Your task to perform on an android device: Go to ESPN.com Image 0: 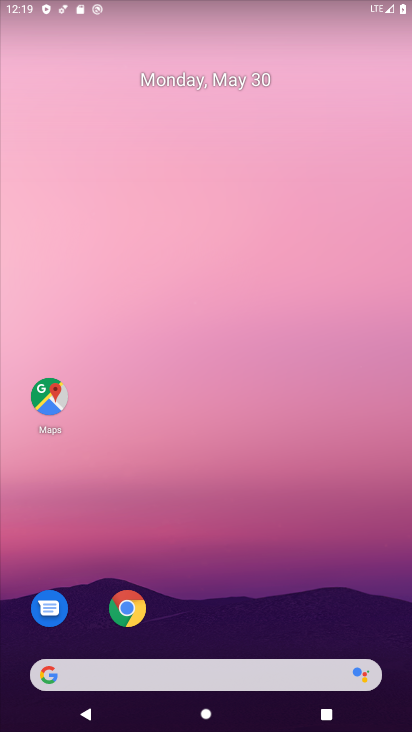
Step 0: click (134, 604)
Your task to perform on an android device: Go to ESPN.com Image 1: 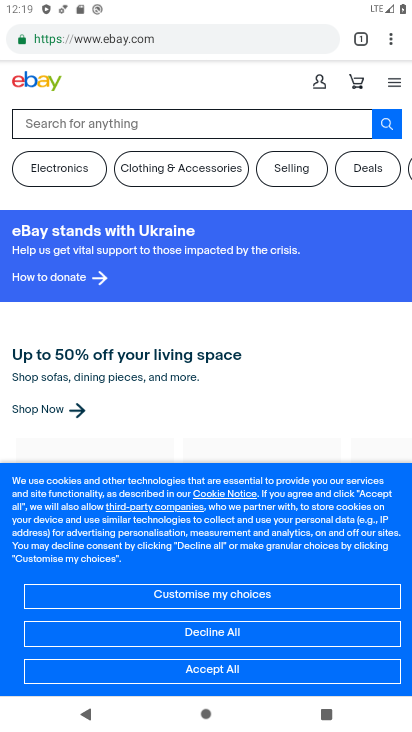
Step 1: click (156, 34)
Your task to perform on an android device: Go to ESPN.com Image 2: 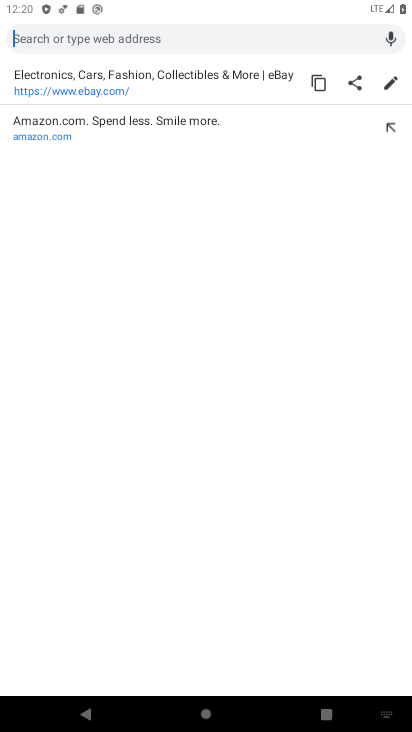
Step 2: type "ESPN.com"
Your task to perform on an android device: Go to ESPN.com Image 3: 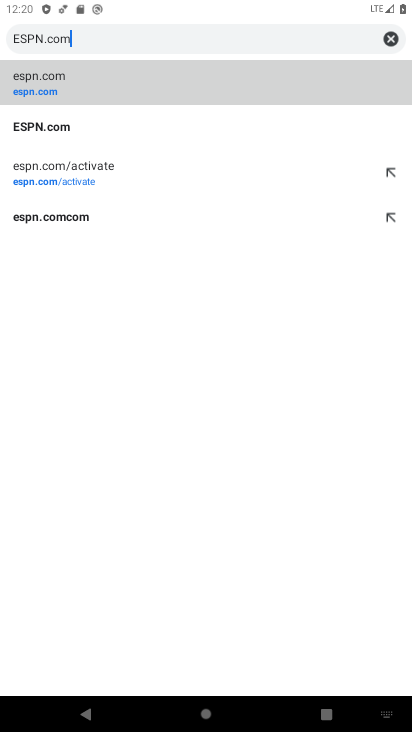
Step 3: click (61, 86)
Your task to perform on an android device: Go to ESPN.com Image 4: 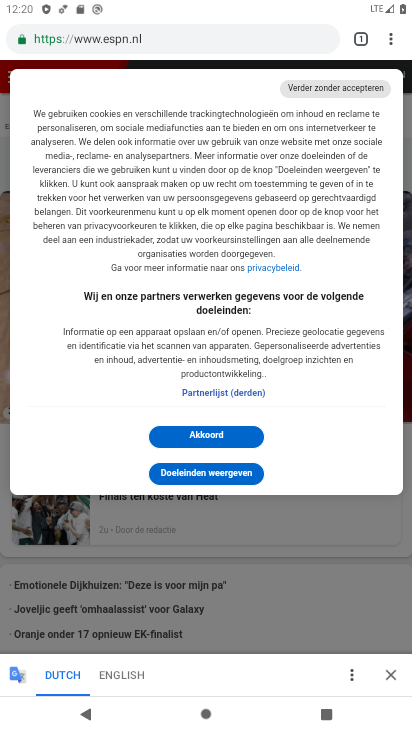
Step 4: task complete